Your task to perform on an android device: What's the weather? Image 0: 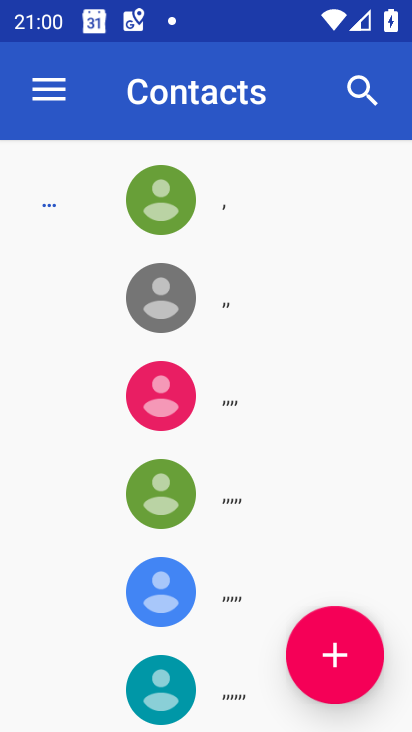
Step 0: press home button
Your task to perform on an android device: What's the weather? Image 1: 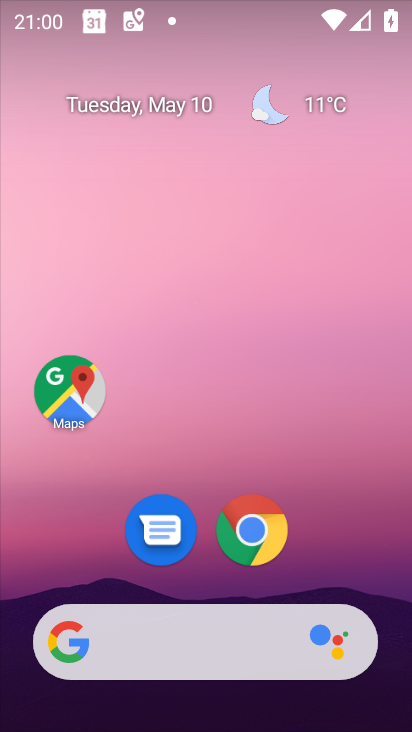
Step 1: click (272, 548)
Your task to perform on an android device: What's the weather? Image 2: 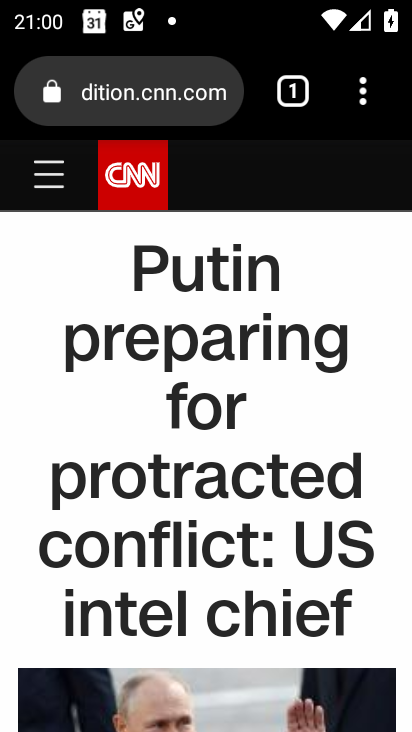
Step 2: click (94, 96)
Your task to perform on an android device: What's the weather? Image 3: 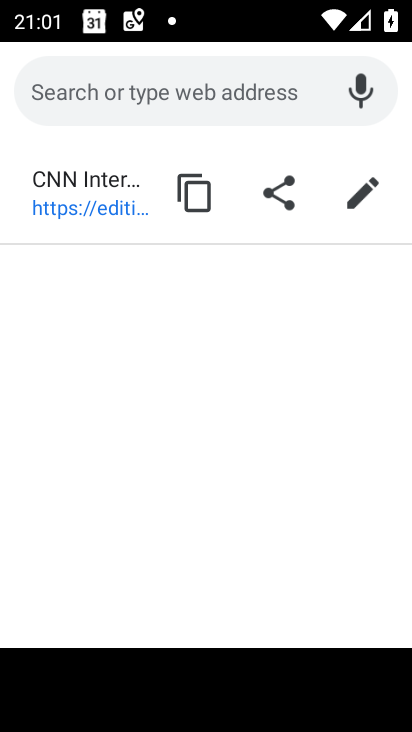
Step 3: type "whats the weather?"
Your task to perform on an android device: What's the weather? Image 4: 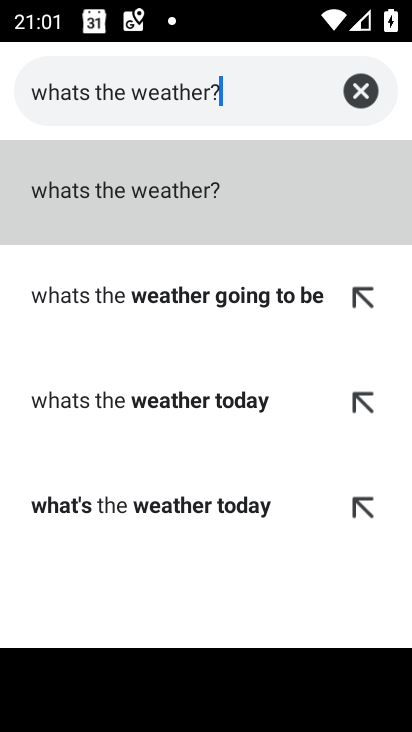
Step 4: click (129, 202)
Your task to perform on an android device: What's the weather? Image 5: 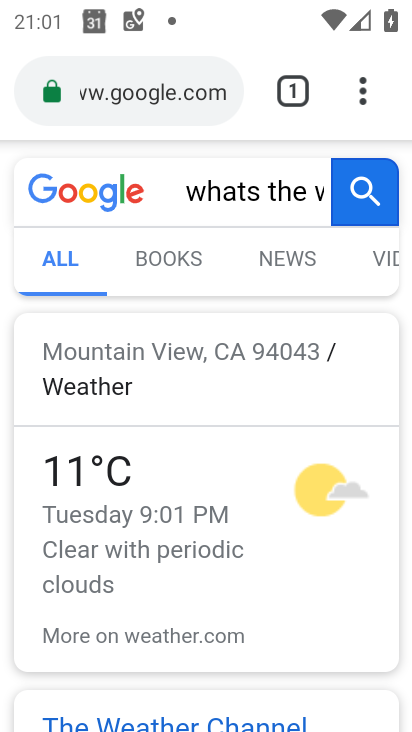
Step 5: task complete